Your task to perform on an android device: Go to CNN.com Image 0: 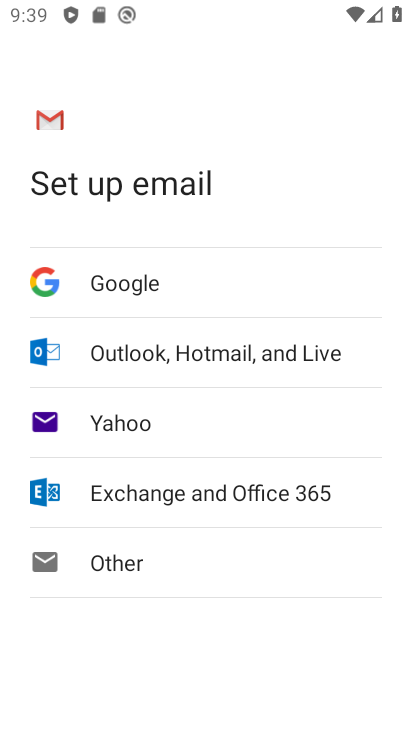
Step 0: press home button
Your task to perform on an android device: Go to CNN.com Image 1: 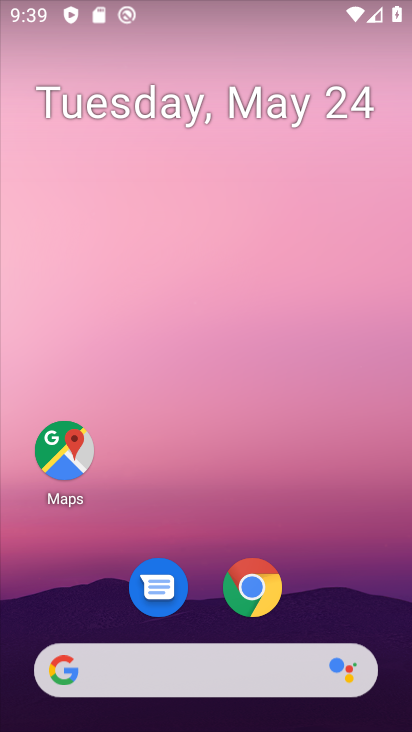
Step 1: click (265, 587)
Your task to perform on an android device: Go to CNN.com Image 2: 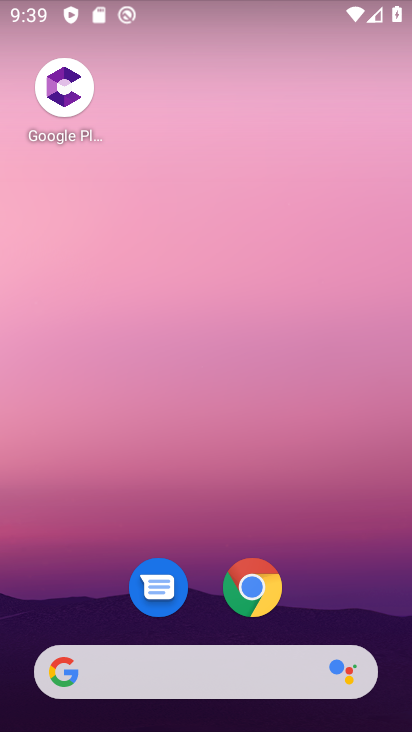
Step 2: click (258, 585)
Your task to perform on an android device: Go to CNN.com Image 3: 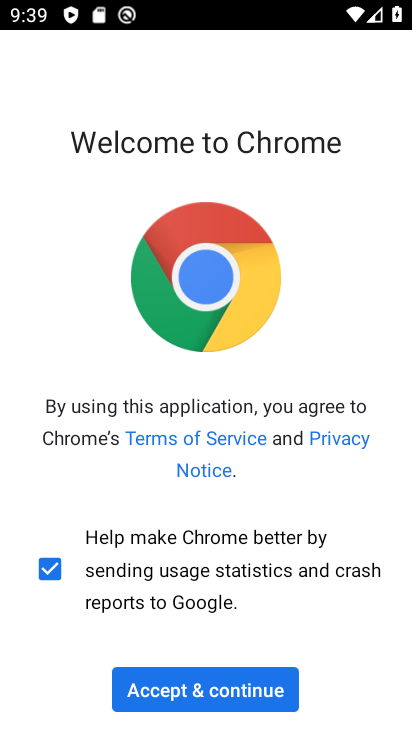
Step 3: click (195, 684)
Your task to perform on an android device: Go to CNN.com Image 4: 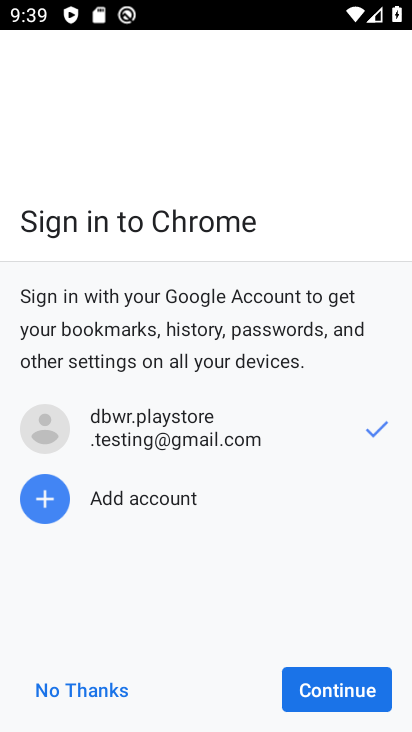
Step 4: click (371, 683)
Your task to perform on an android device: Go to CNN.com Image 5: 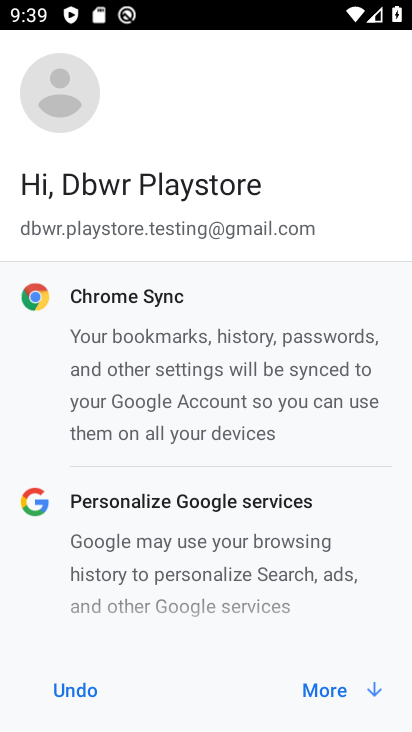
Step 5: click (371, 683)
Your task to perform on an android device: Go to CNN.com Image 6: 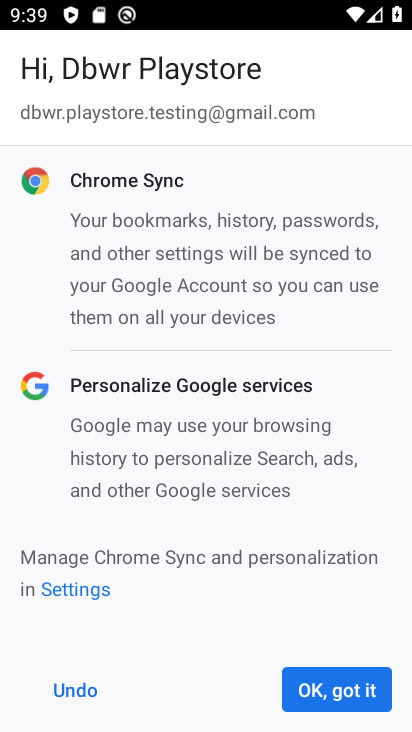
Step 6: click (371, 683)
Your task to perform on an android device: Go to CNN.com Image 7: 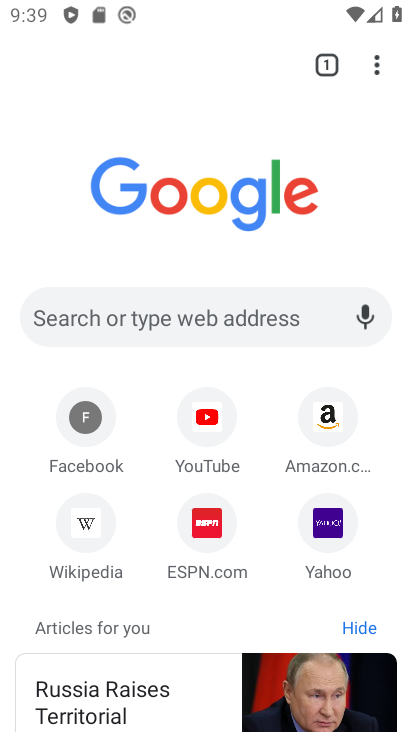
Step 7: click (239, 325)
Your task to perform on an android device: Go to CNN.com Image 8: 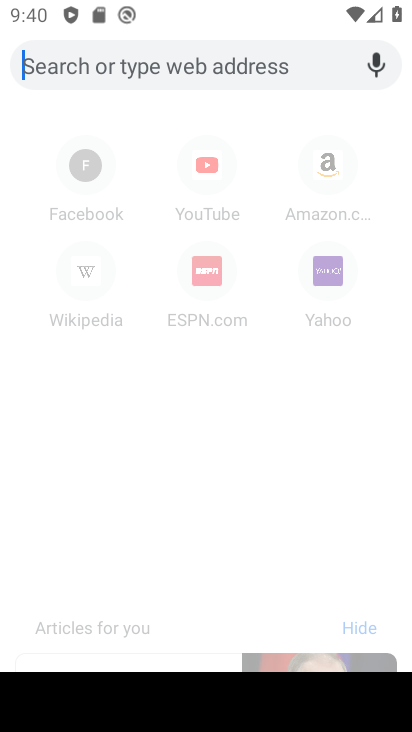
Step 8: type " CNN.com"
Your task to perform on an android device: Go to CNN.com Image 9: 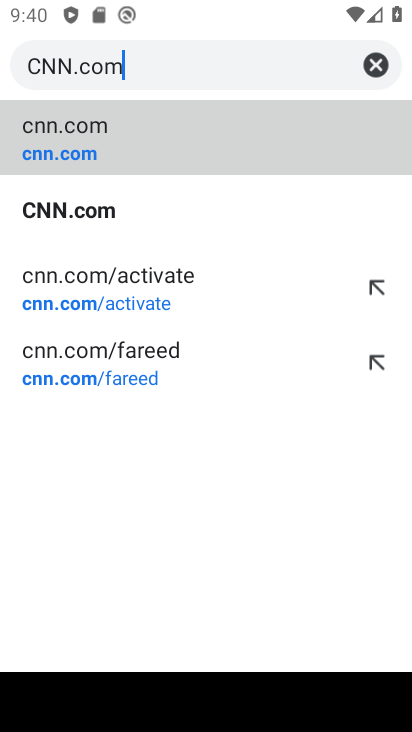
Step 9: type ""
Your task to perform on an android device: Go to CNN.com Image 10: 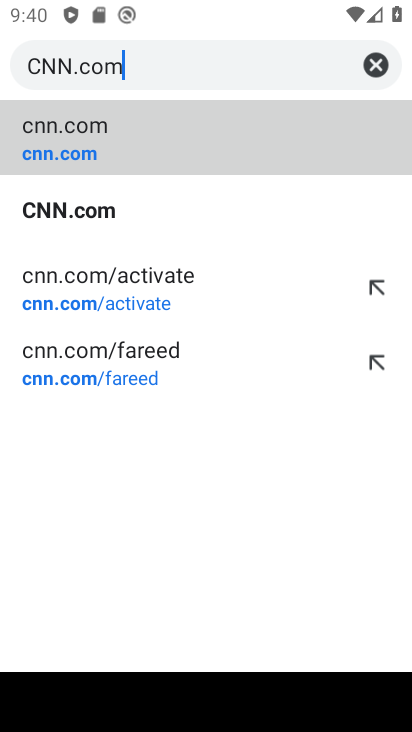
Step 10: click (76, 122)
Your task to perform on an android device: Go to CNN.com Image 11: 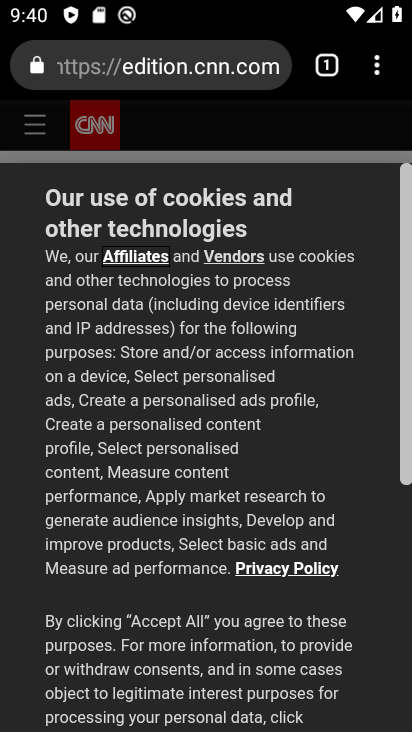
Step 11: task complete